Your task to perform on an android device: open app "Skype" Image 0: 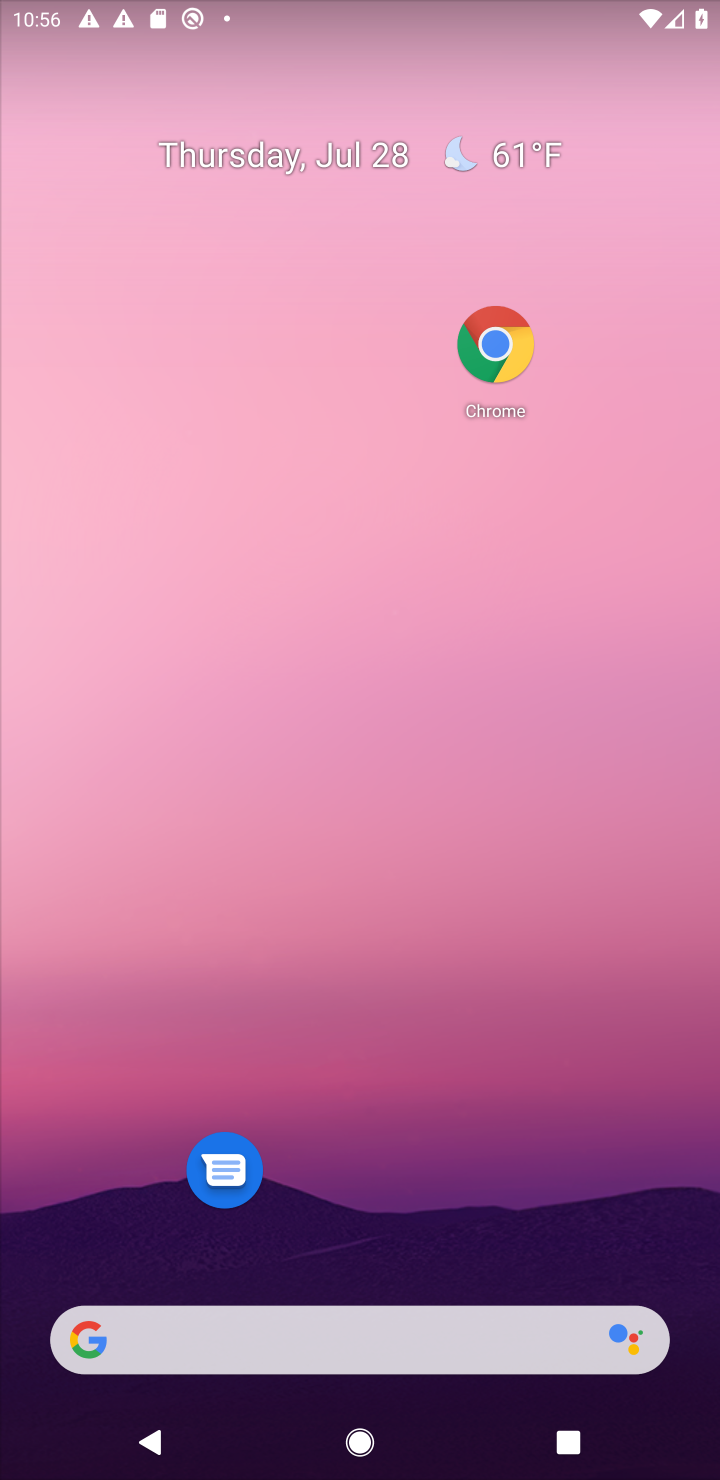
Step 0: drag from (436, 1003) to (455, 26)
Your task to perform on an android device: open app "Skype" Image 1: 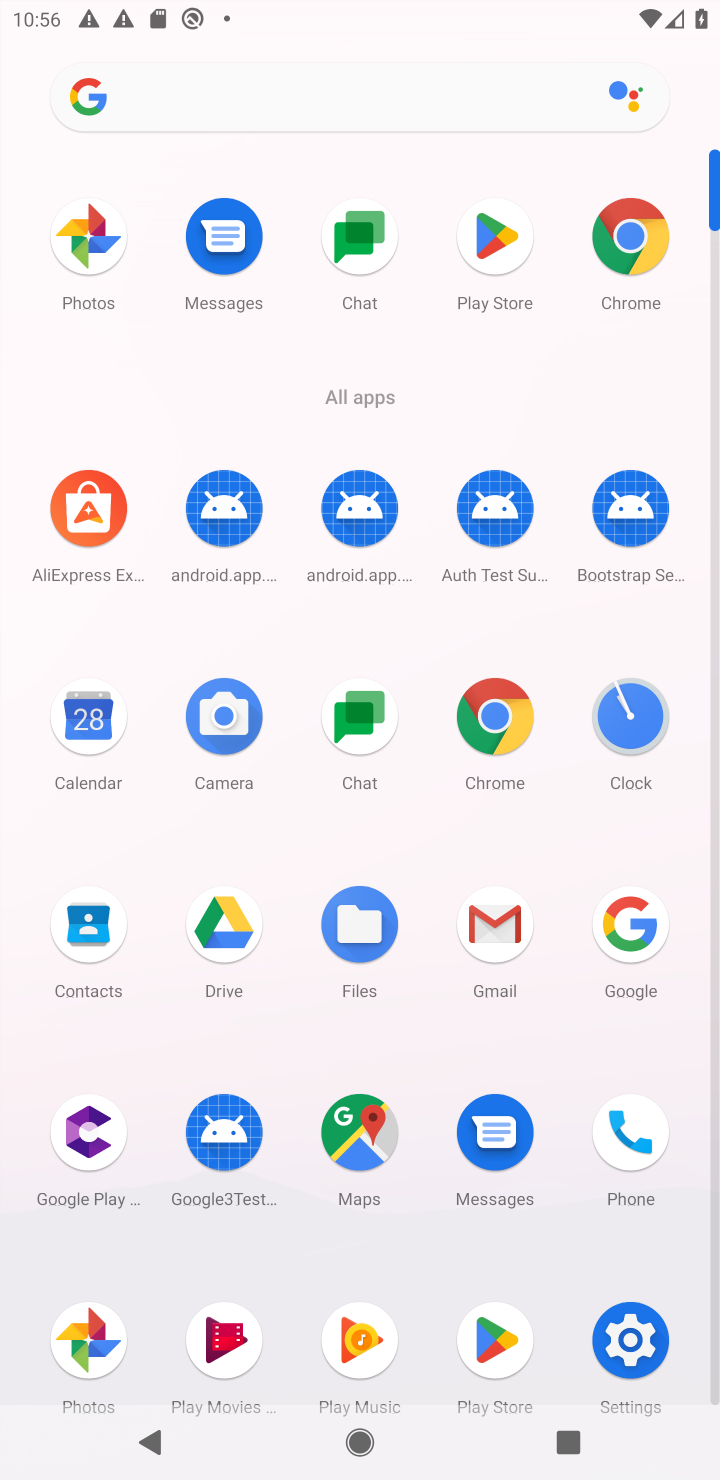
Step 1: drag from (565, 1233) to (605, 355)
Your task to perform on an android device: open app "Skype" Image 2: 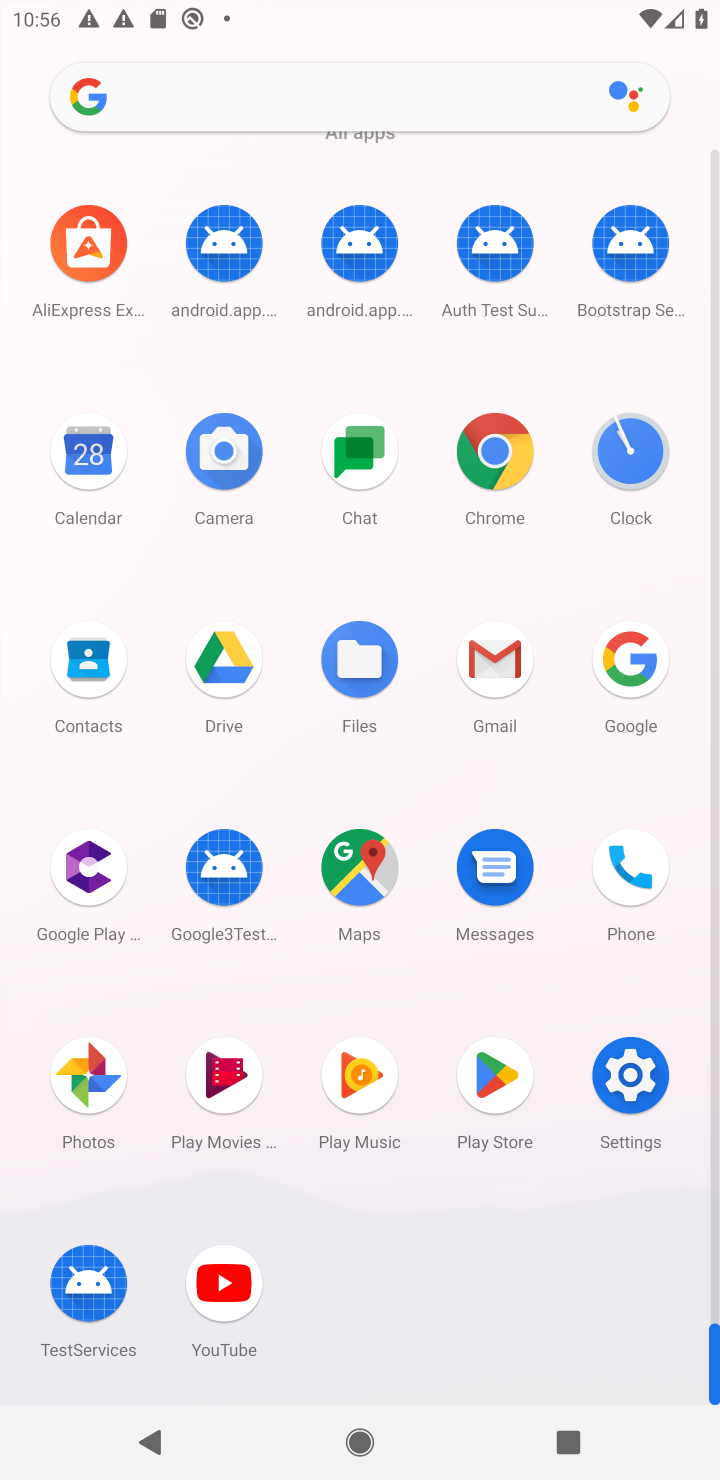
Step 2: click (489, 1091)
Your task to perform on an android device: open app "Skype" Image 3: 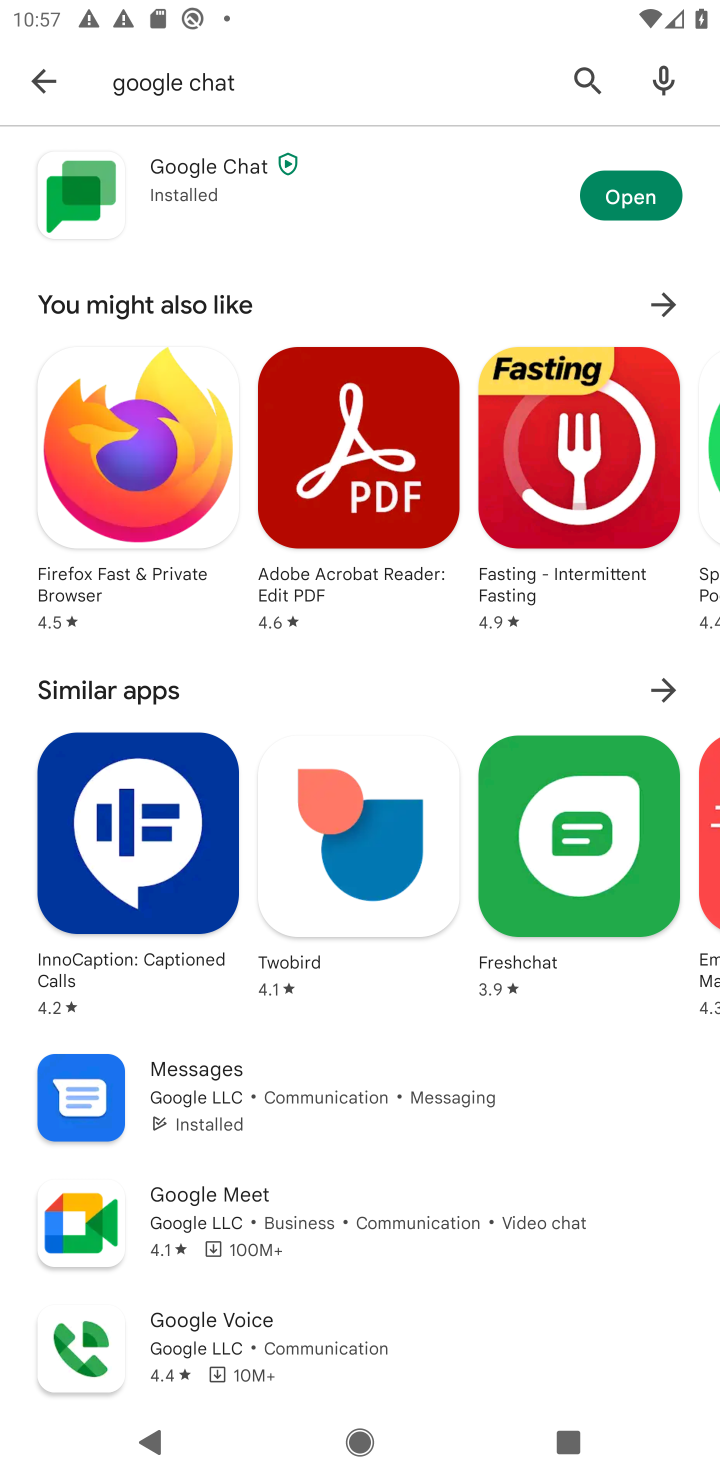
Step 3: click (586, 86)
Your task to perform on an android device: open app "Skype" Image 4: 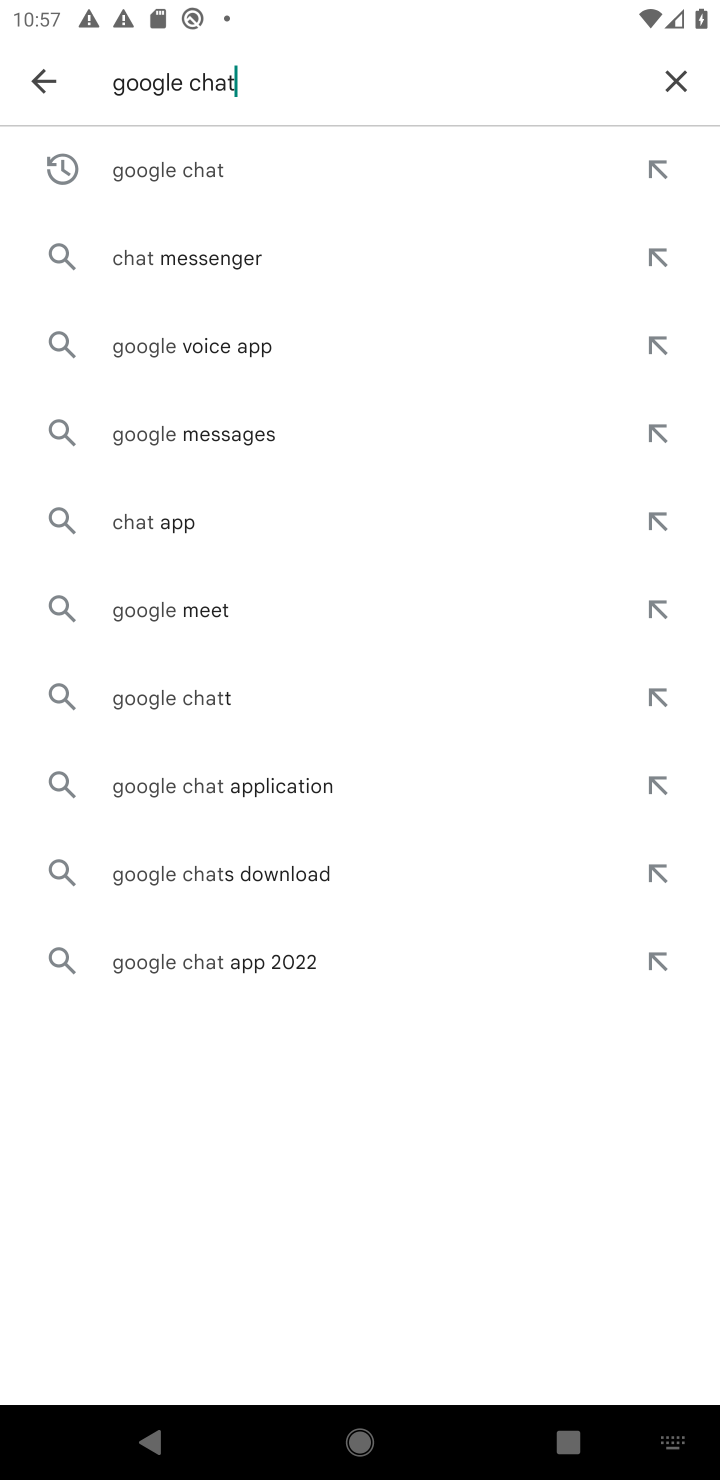
Step 4: click (673, 73)
Your task to perform on an android device: open app "Skype" Image 5: 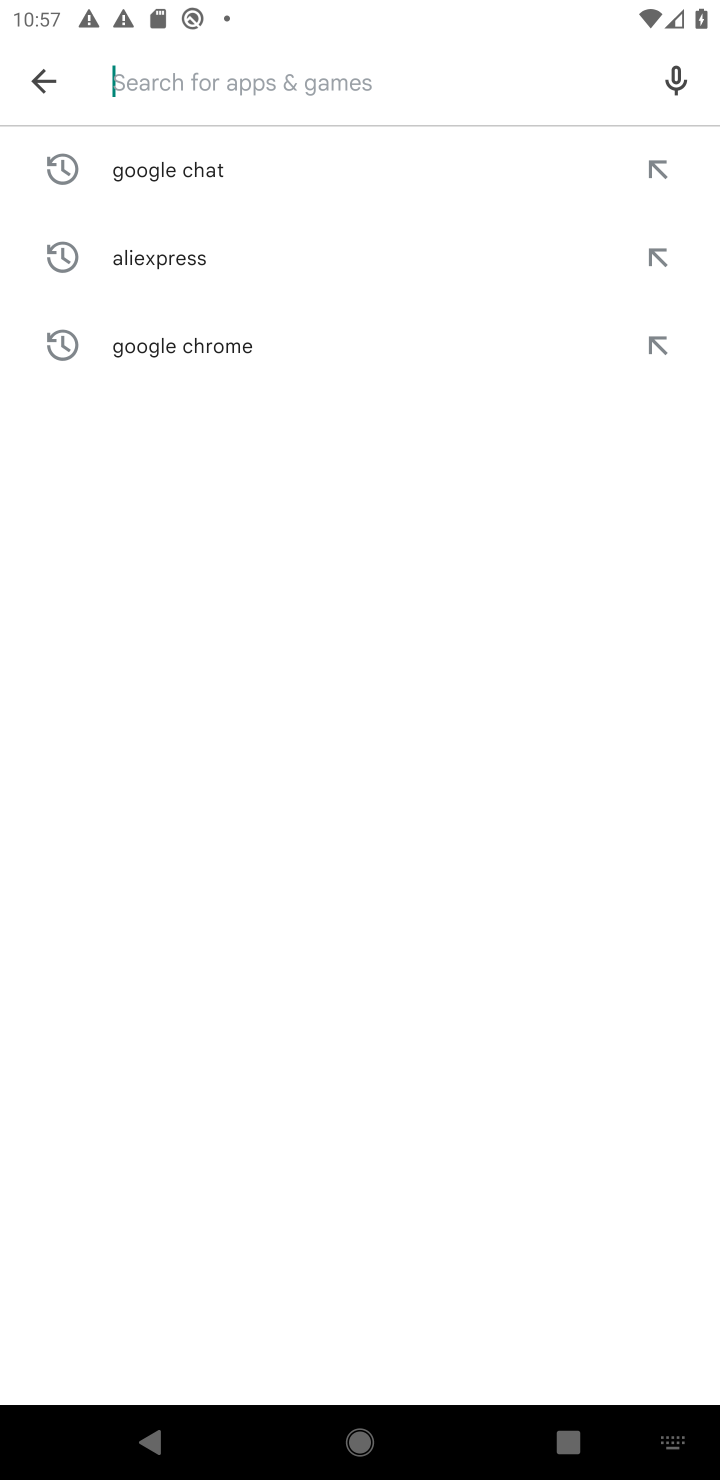
Step 5: type "skype"
Your task to perform on an android device: open app "Skype" Image 6: 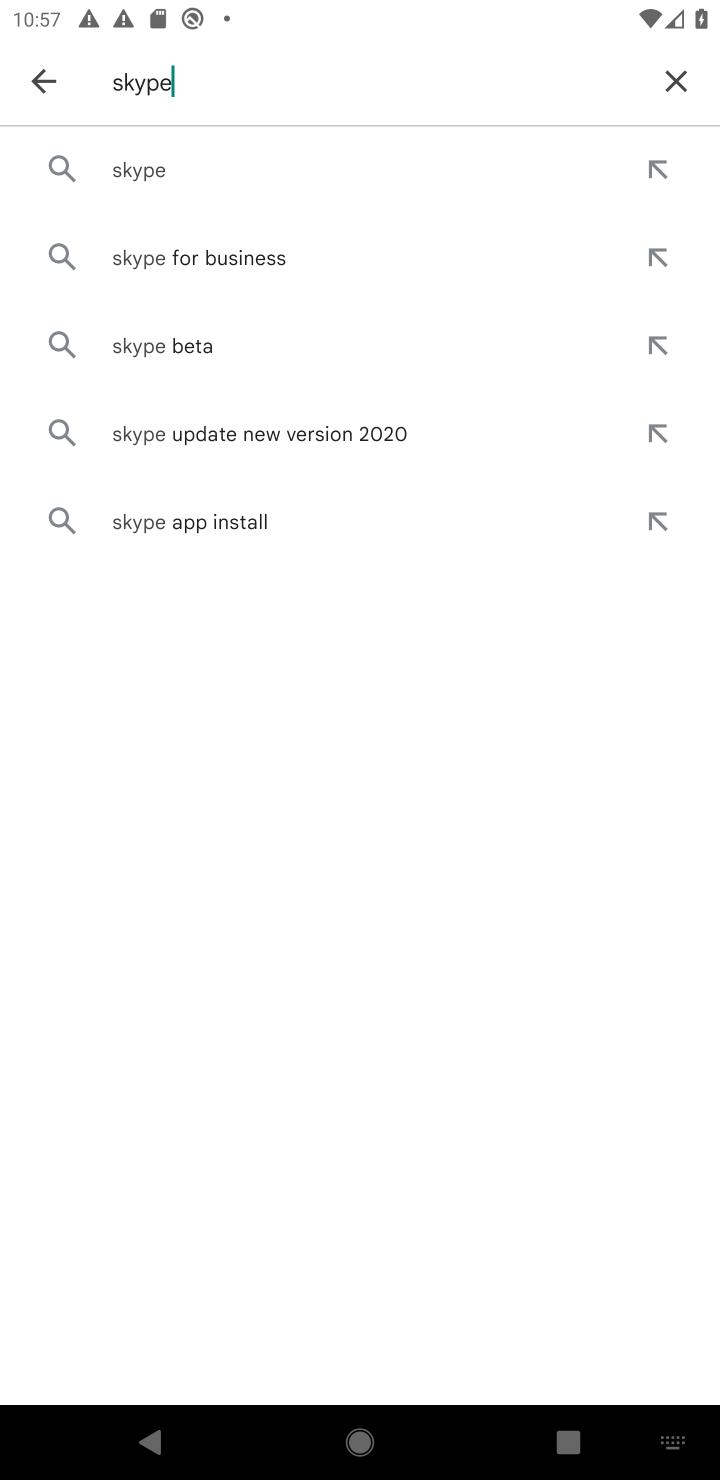
Step 6: click (192, 152)
Your task to perform on an android device: open app "Skype" Image 7: 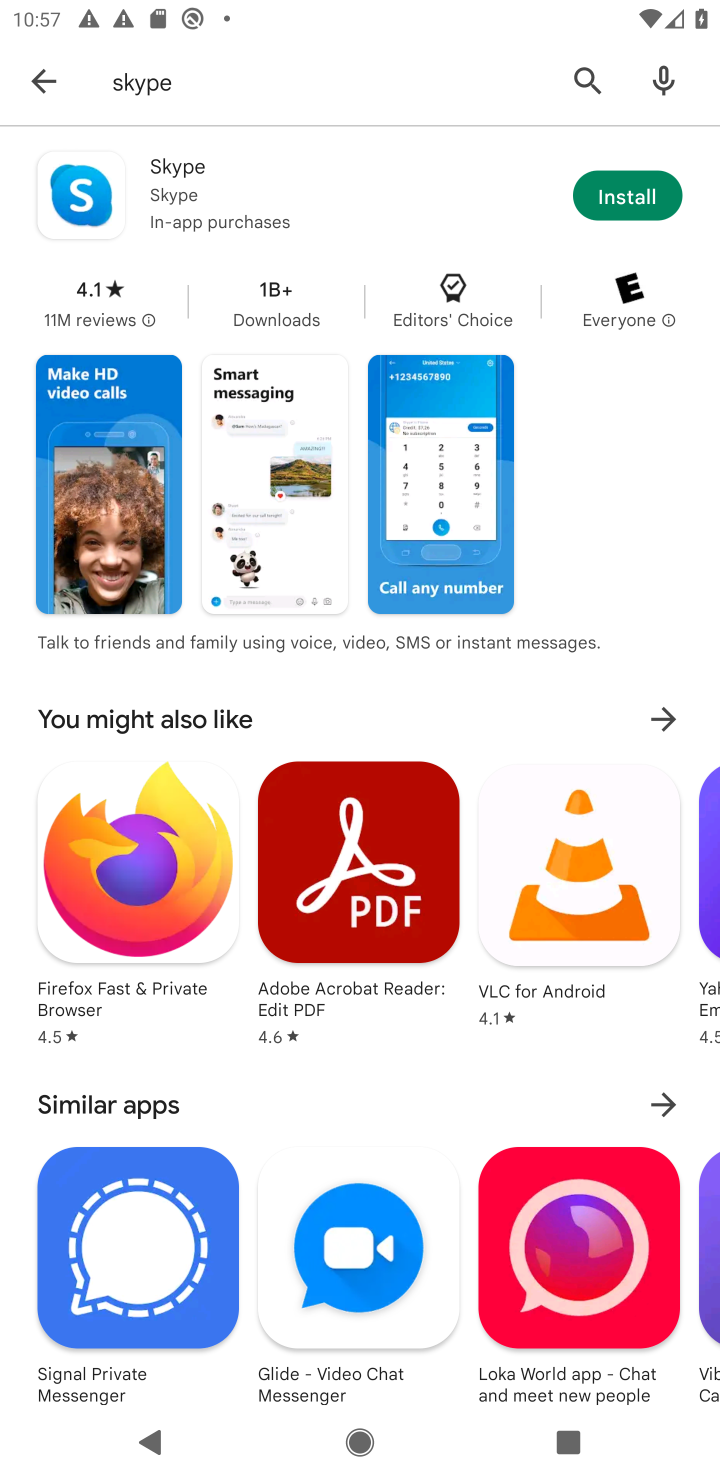
Step 7: task complete